Your task to perform on an android device: Add "macbook" to the cart on amazon, then select checkout. Image 0: 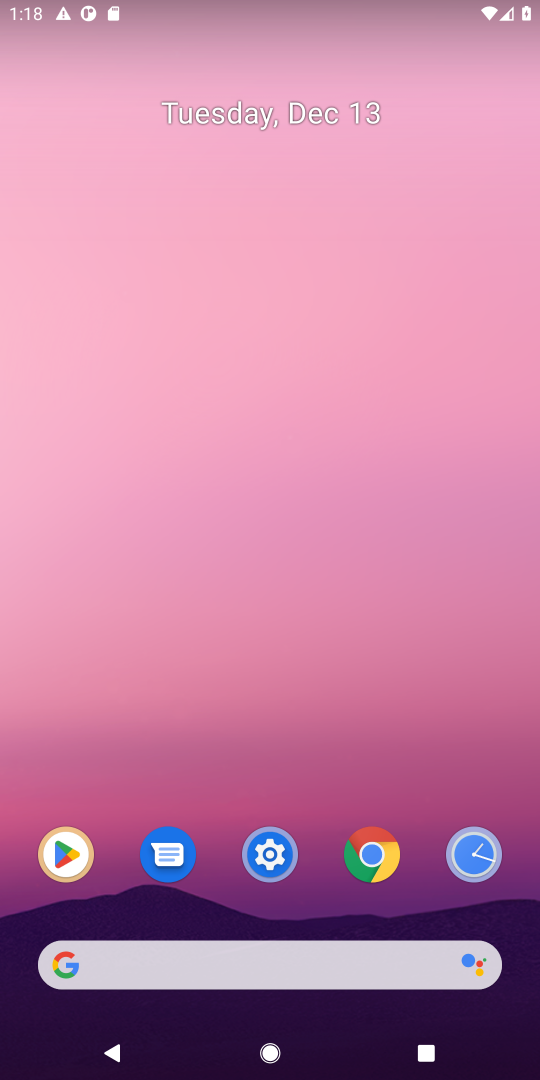
Step 0: click (374, 866)
Your task to perform on an android device: Add "macbook" to the cart on amazon, then select checkout. Image 1: 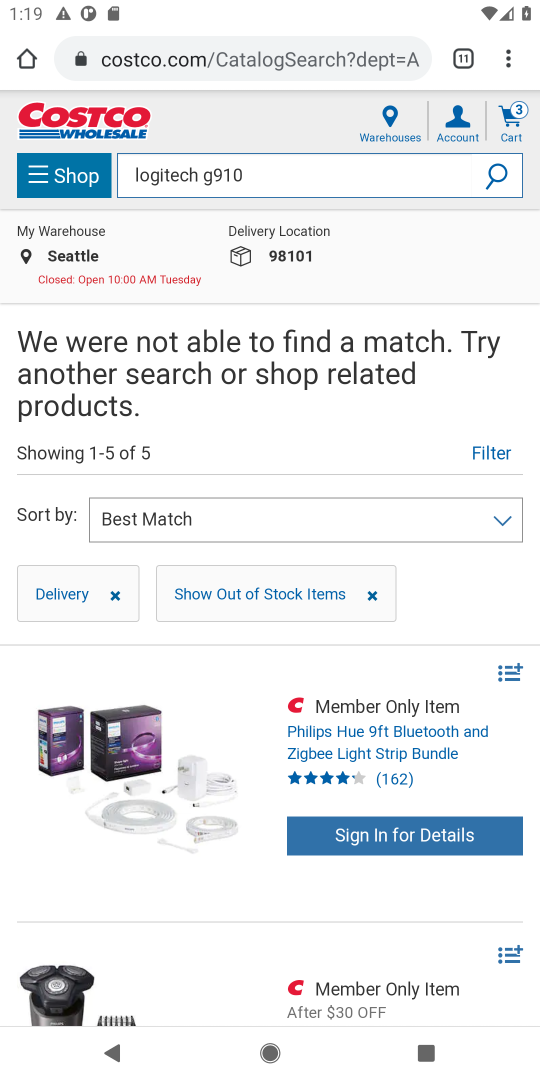
Step 1: click (304, 70)
Your task to perform on an android device: Add "macbook" to the cart on amazon, then select checkout. Image 2: 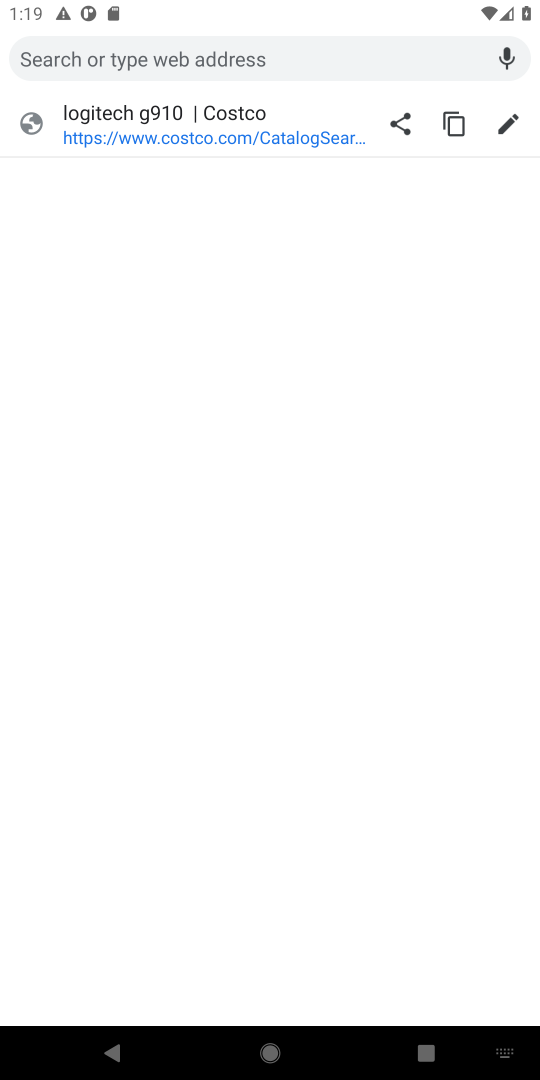
Step 2: type "amazon"
Your task to perform on an android device: Add "macbook" to the cart on amazon, then select checkout. Image 3: 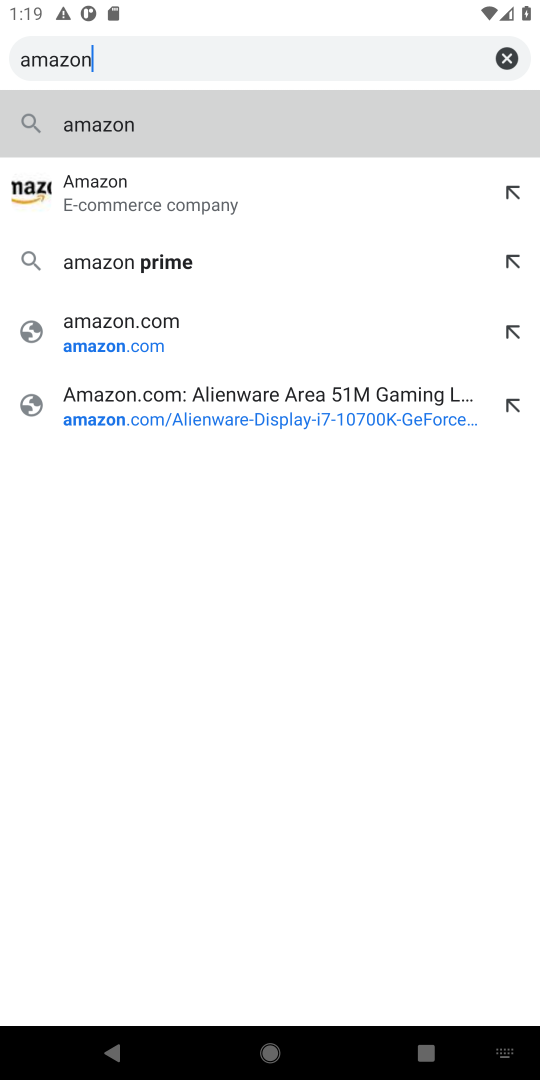
Step 3: click (203, 183)
Your task to perform on an android device: Add "macbook" to the cart on amazon, then select checkout. Image 4: 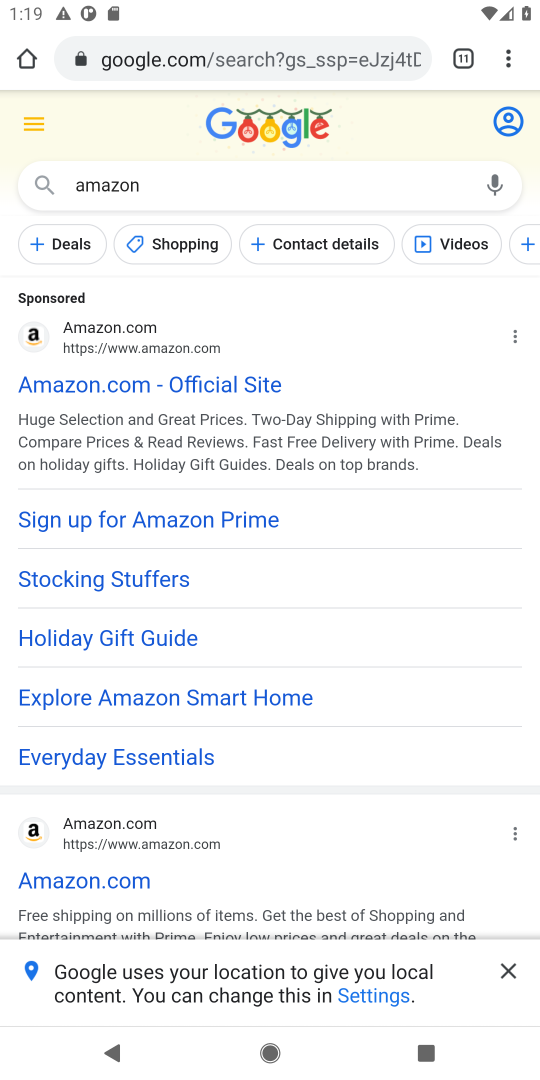
Step 4: click (149, 376)
Your task to perform on an android device: Add "macbook" to the cart on amazon, then select checkout. Image 5: 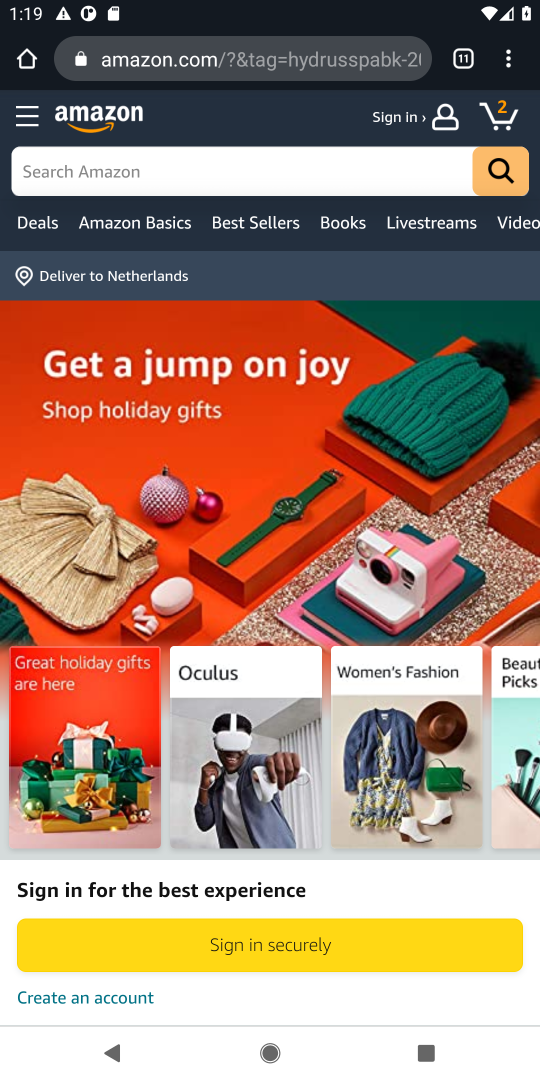
Step 5: click (234, 196)
Your task to perform on an android device: Add "macbook" to the cart on amazon, then select checkout. Image 6: 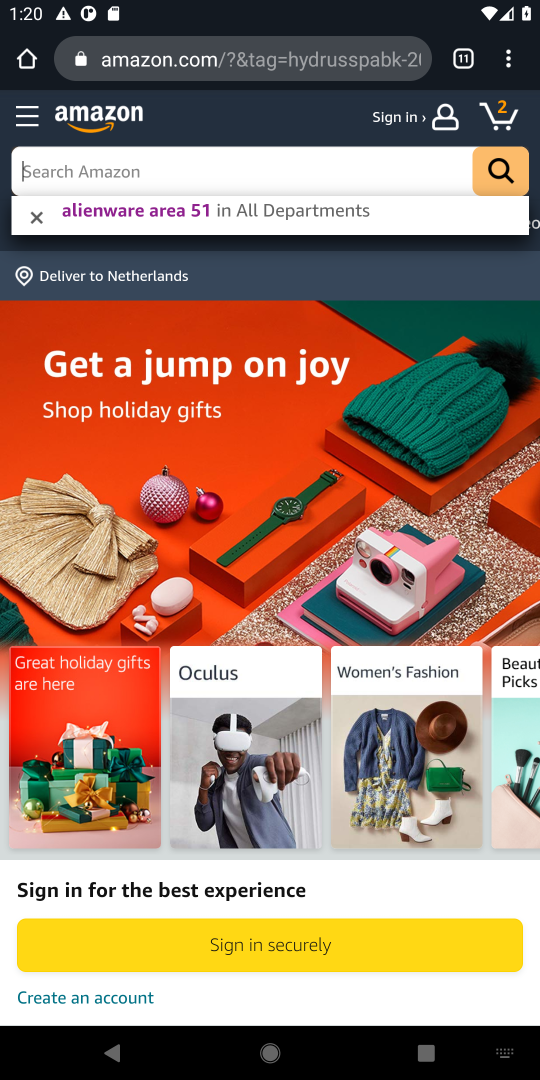
Step 6: type "macbook "
Your task to perform on an android device: Add "macbook" to the cart on amazon, then select checkout. Image 7: 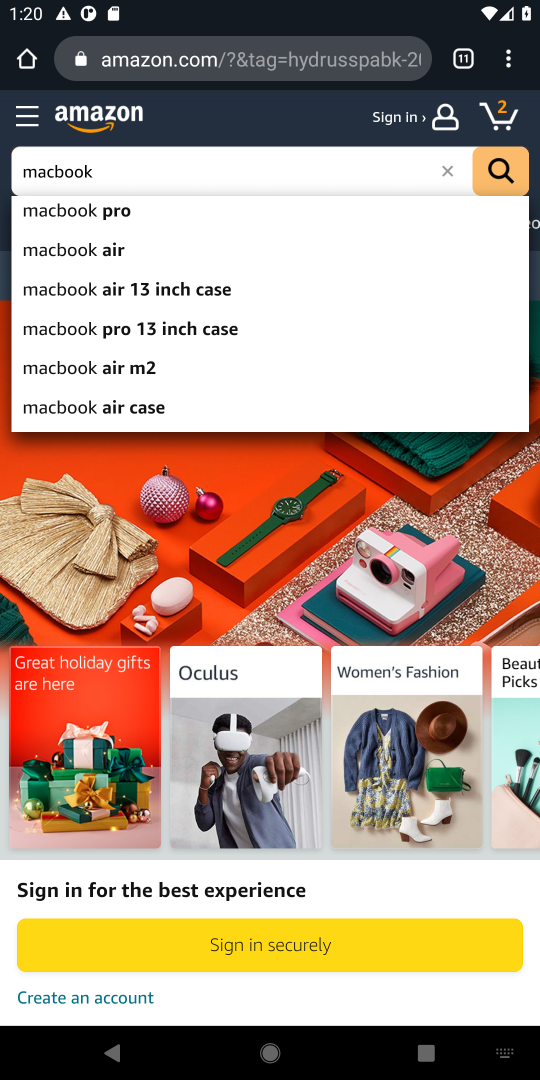
Step 7: click (504, 163)
Your task to perform on an android device: Add "macbook" to the cart on amazon, then select checkout. Image 8: 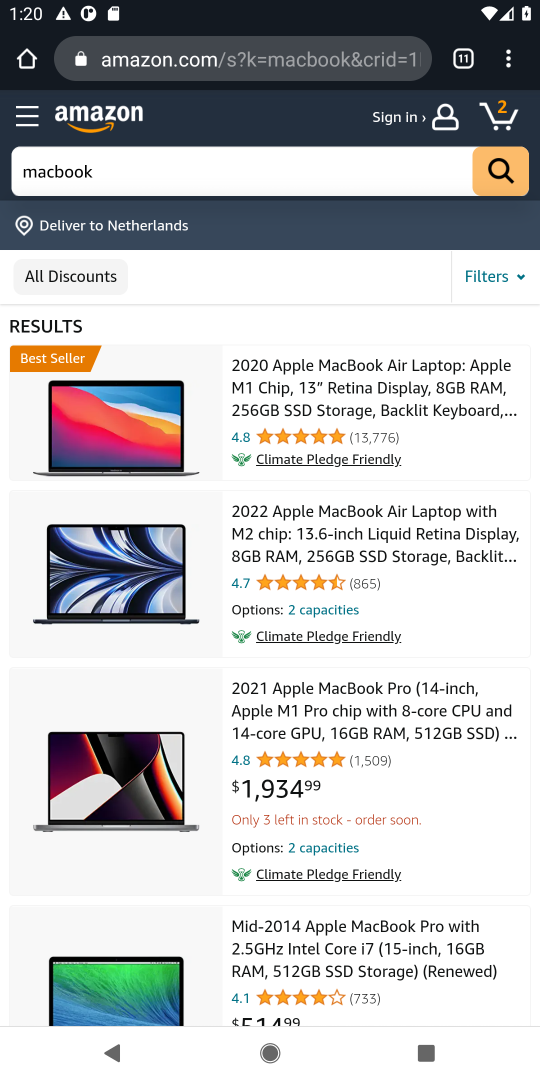
Step 8: click (342, 412)
Your task to perform on an android device: Add "macbook" to the cart on amazon, then select checkout. Image 9: 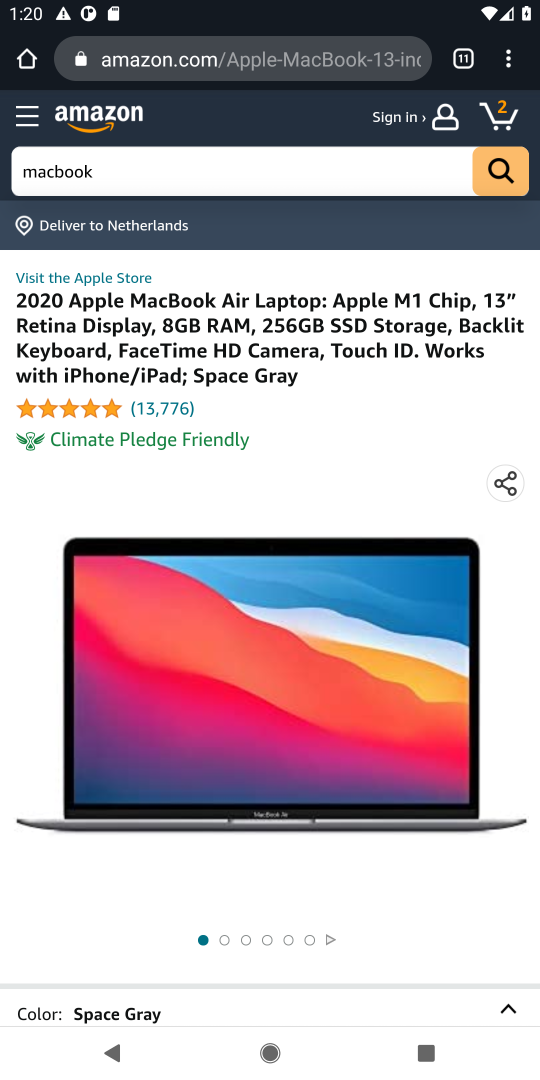
Step 9: task complete